Your task to perform on an android device: Open internet settings Image 0: 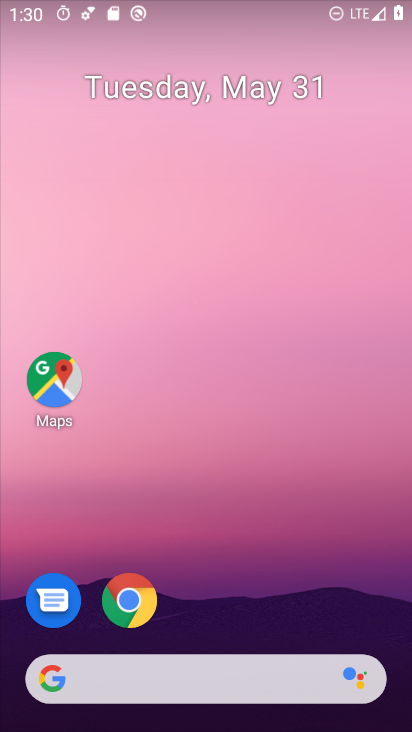
Step 0: drag from (227, 700) to (227, 494)
Your task to perform on an android device: Open internet settings Image 1: 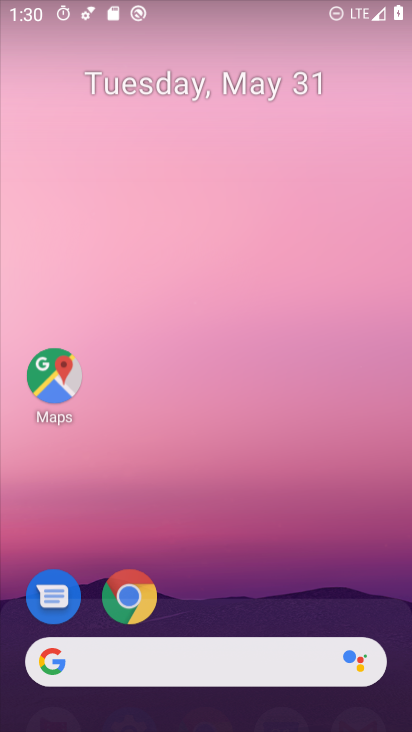
Step 1: drag from (227, 110) to (227, 69)
Your task to perform on an android device: Open internet settings Image 2: 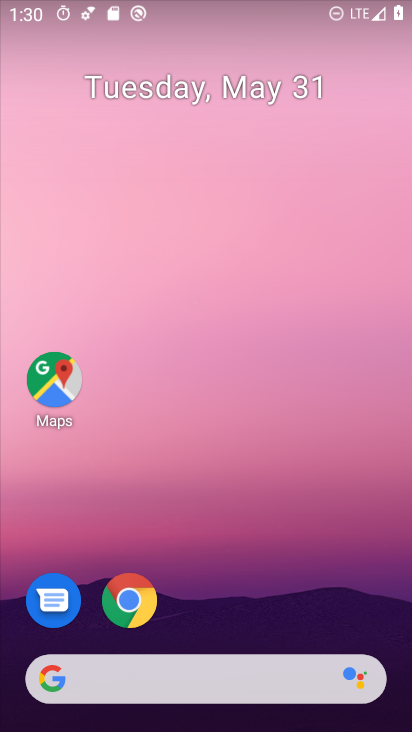
Step 2: drag from (212, 724) to (215, 89)
Your task to perform on an android device: Open internet settings Image 3: 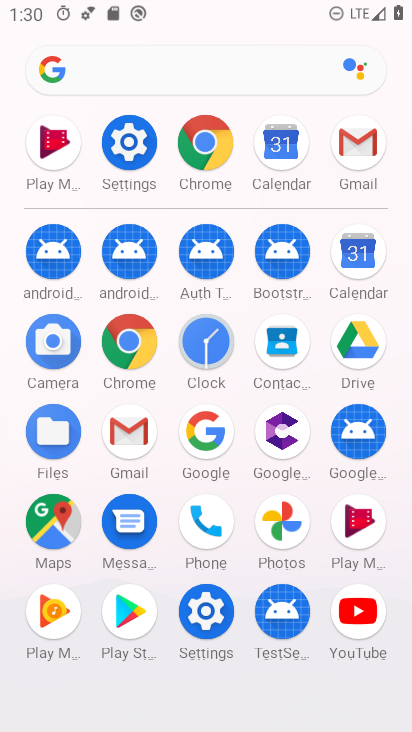
Step 3: click (136, 151)
Your task to perform on an android device: Open internet settings Image 4: 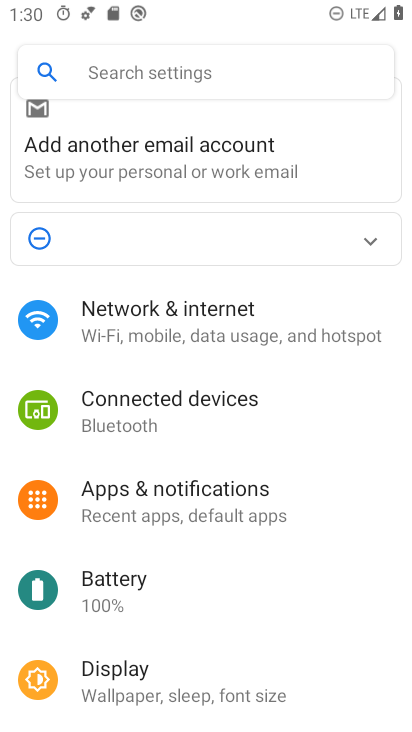
Step 4: click (155, 333)
Your task to perform on an android device: Open internet settings Image 5: 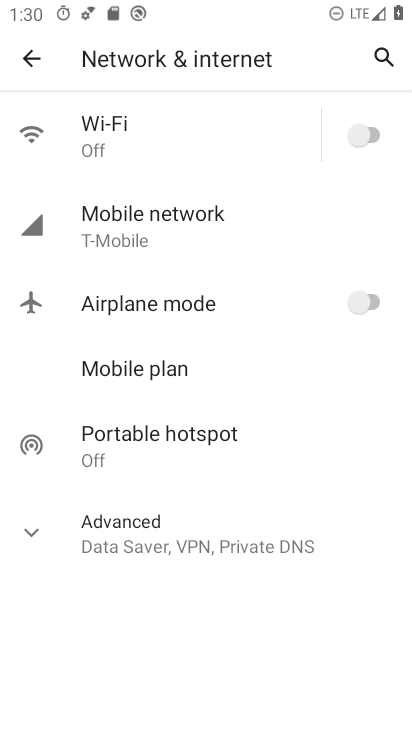
Step 5: task complete